Your task to perform on an android device: uninstall "Reddit" Image 0: 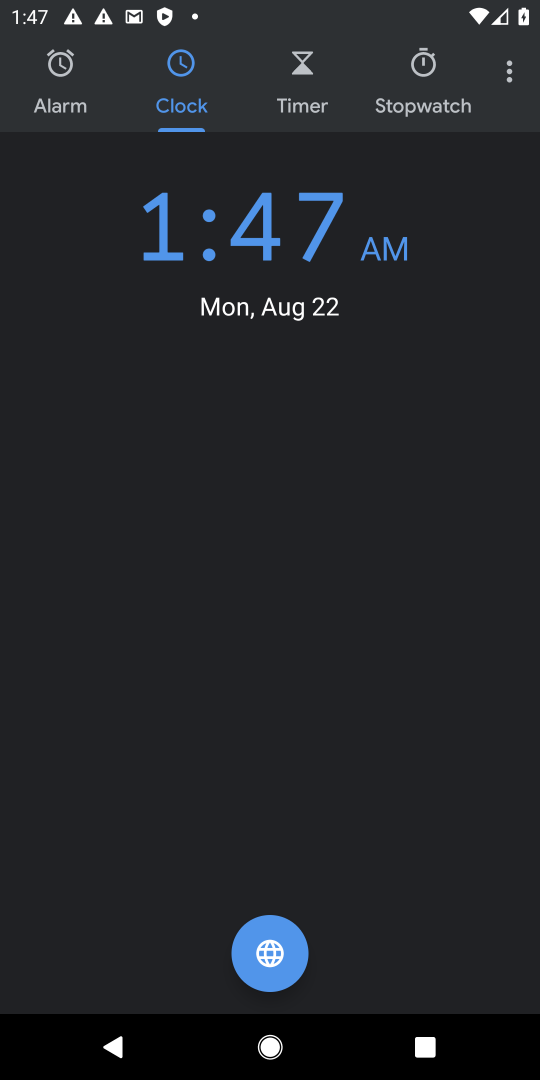
Step 0: press home button
Your task to perform on an android device: uninstall "Reddit" Image 1: 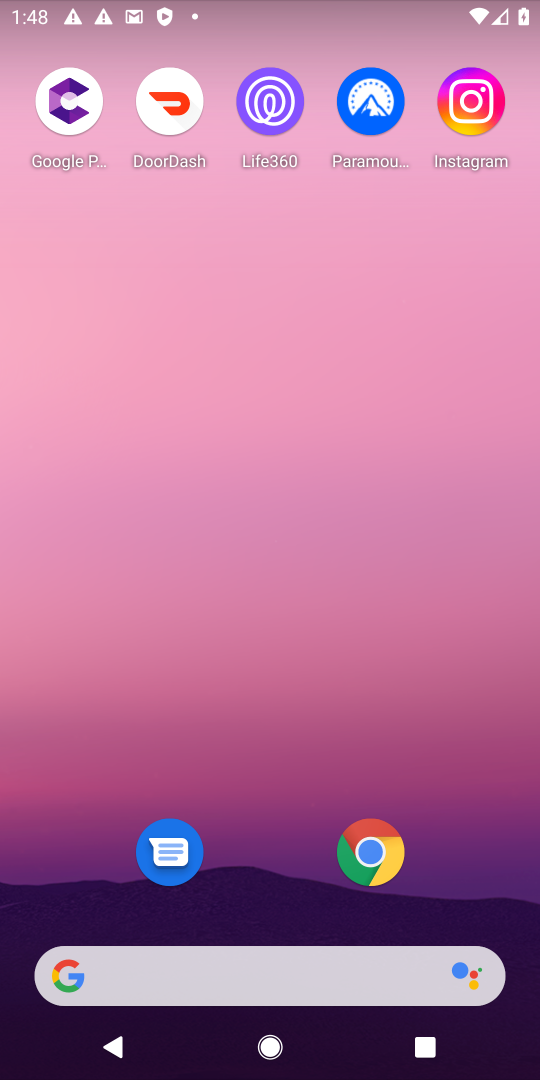
Step 1: drag from (290, 977) to (352, 266)
Your task to perform on an android device: uninstall "Reddit" Image 2: 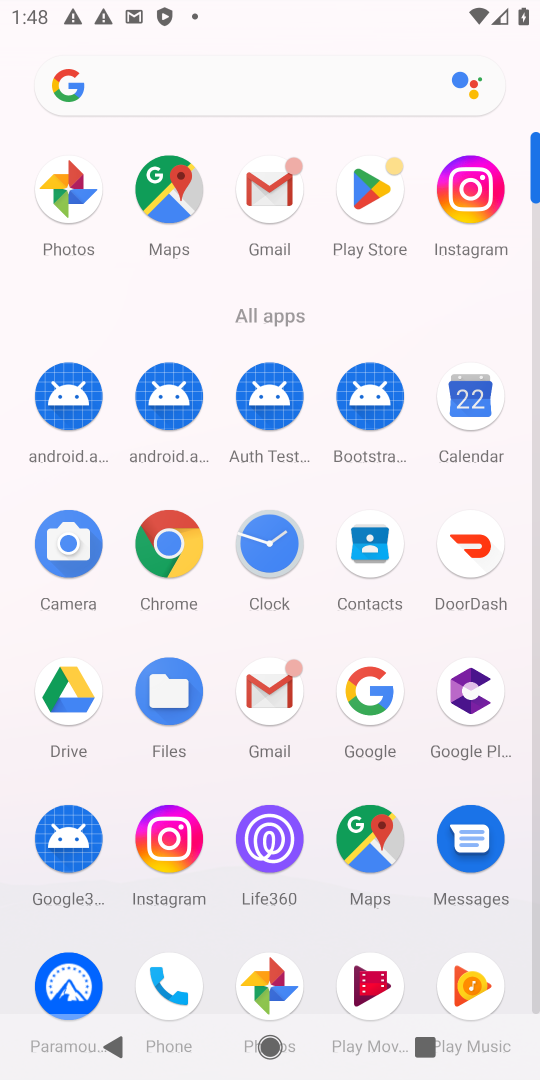
Step 2: click (357, 196)
Your task to perform on an android device: uninstall "Reddit" Image 3: 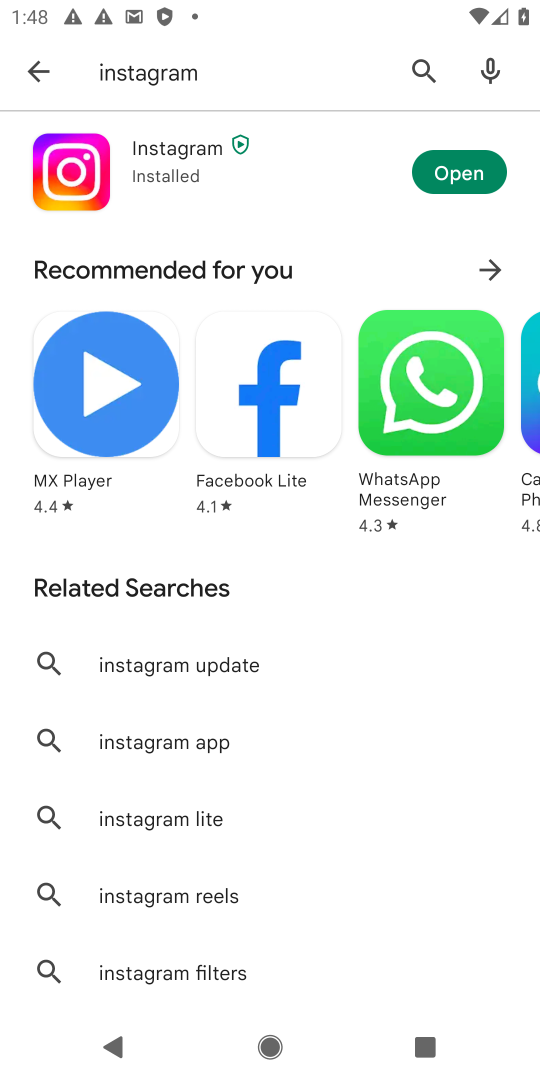
Step 3: click (422, 67)
Your task to perform on an android device: uninstall "Reddit" Image 4: 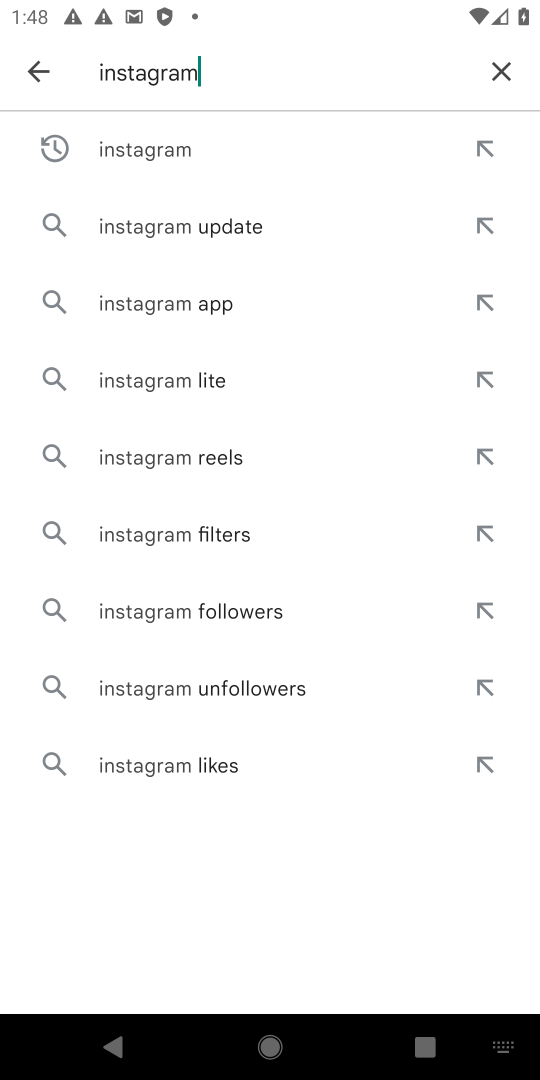
Step 4: click (496, 72)
Your task to perform on an android device: uninstall "Reddit" Image 5: 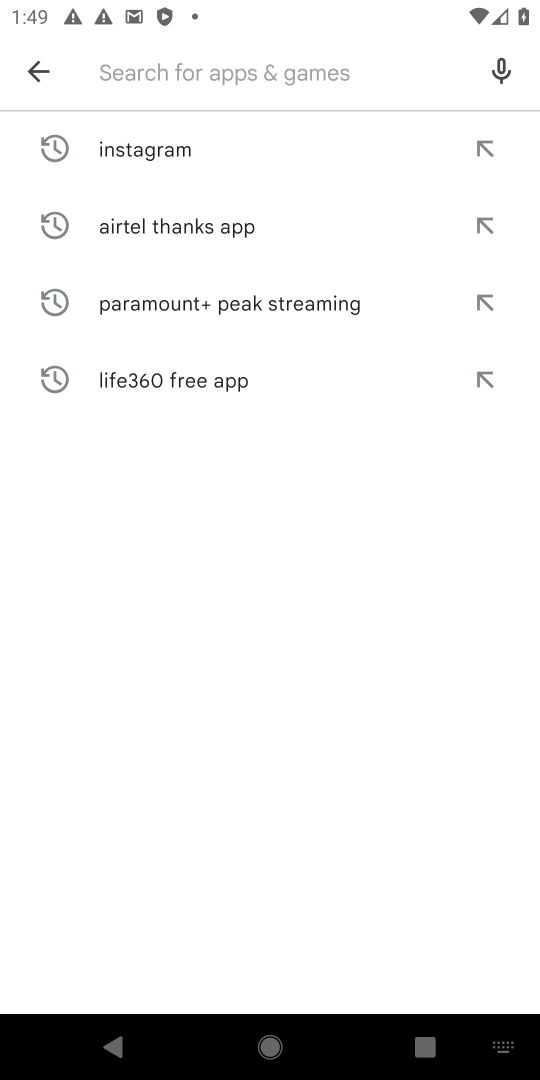
Step 5: type "reddit"
Your task to perform on an android device: uninstall "Reddit" Image 6: 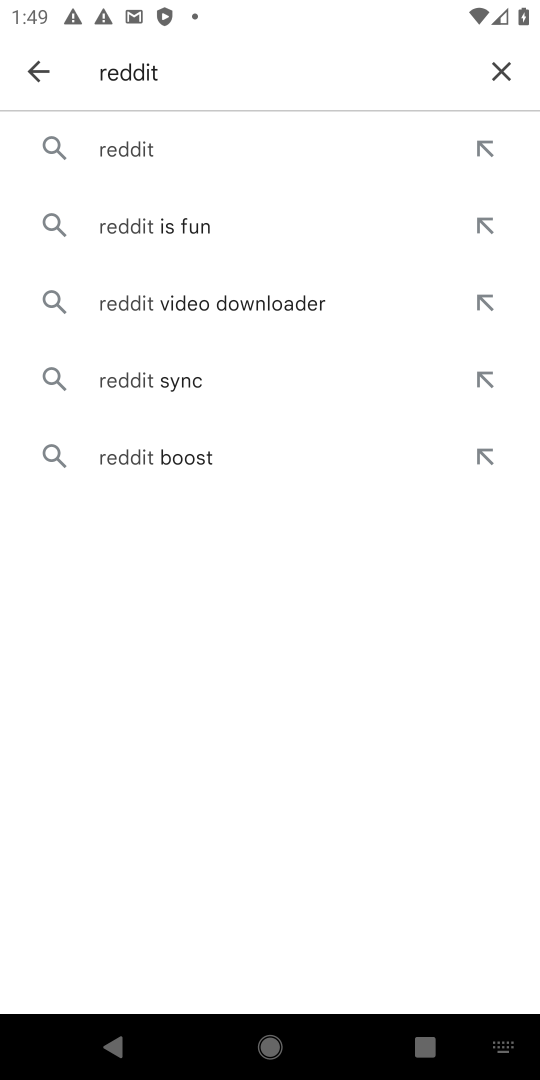
Step 6: click (194, 149)
Your task to perform on an android device: uninstall "Reddit" Image 7: 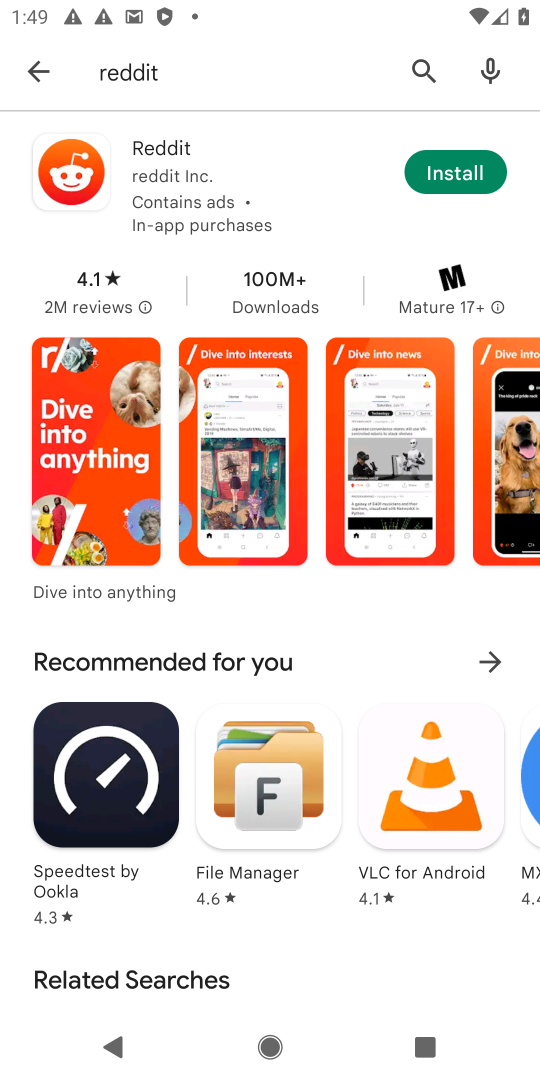
Step 7: task complete